Your task to perform on an android device: turn on sleep mode Image 0: 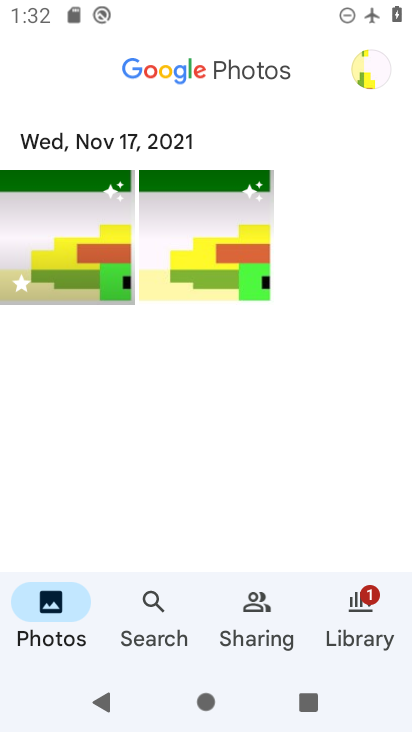
Step 0: press home button
Your task to perform on an android device: turn on sleep mode Image 1: 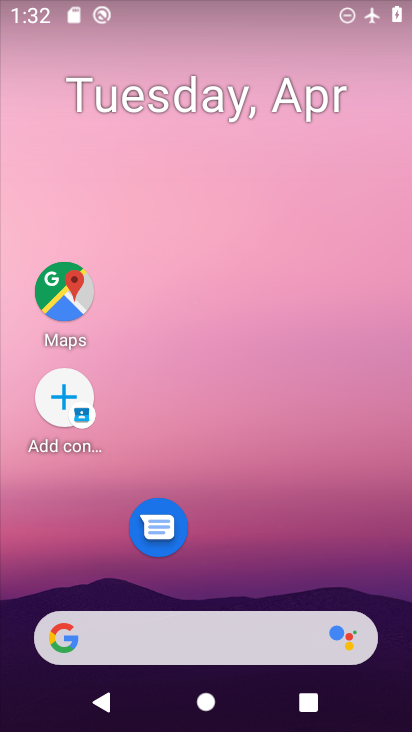
Step 1: drag from (256, 566) to (280, 73)
Your task to perform on an android device: turn on sleep mode Image 2: 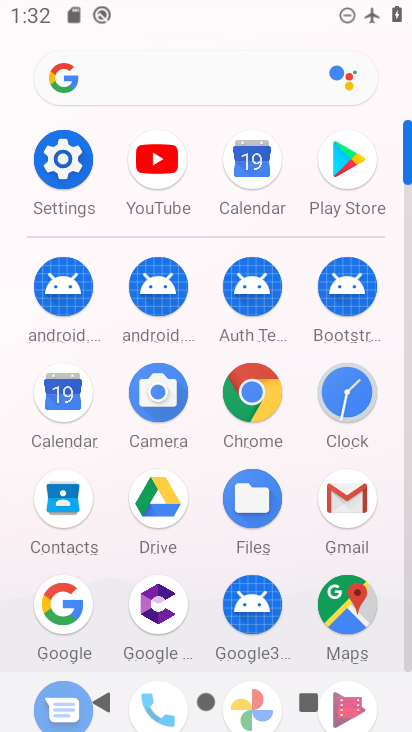
Step 2: click (65, 159)
Your task to perform on an android device: turn on sleep mode Image 3: 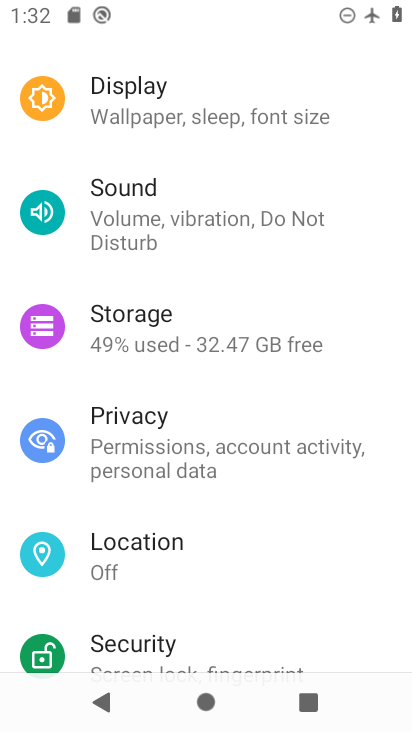
Step 3: drag from (225, 281) to (247, 417)
Your task to perform on an android device: turn on sleep mode Image 4: 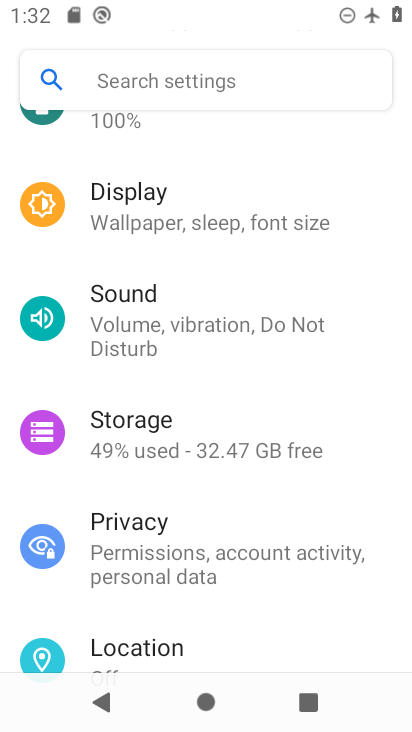
Step 4: click (227, 224)
Your task to perform on an android device: turn on sleep mode Image 5: 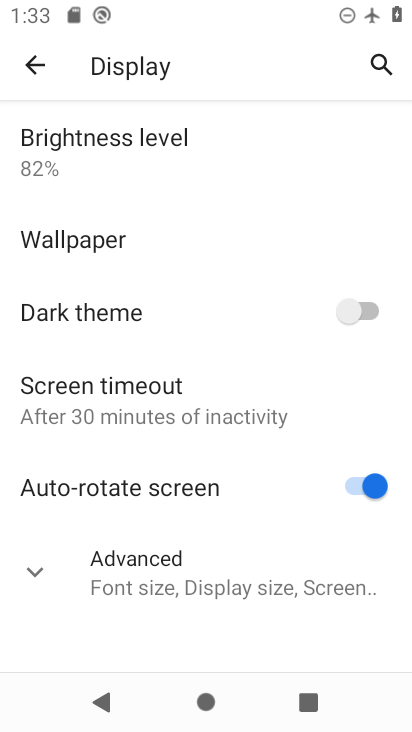
Step 5: task complete